Your task to perform on an android device: Open Youtube and go to the subscriptions tab Image 0: 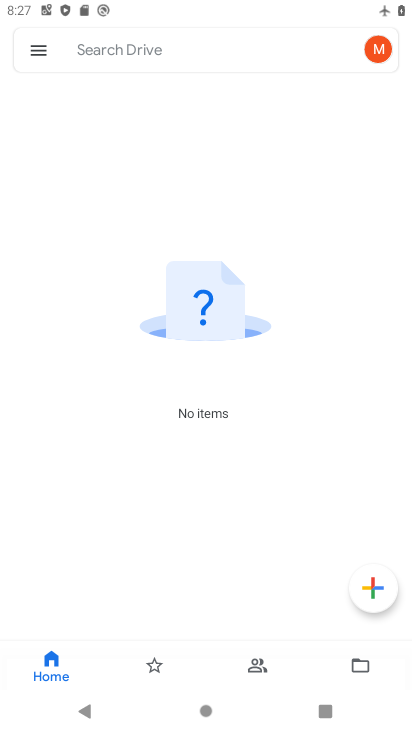
Step 0: press home button
Your task to perform on an android device: Open Youtube and go to the subscriptions tab Image 1: 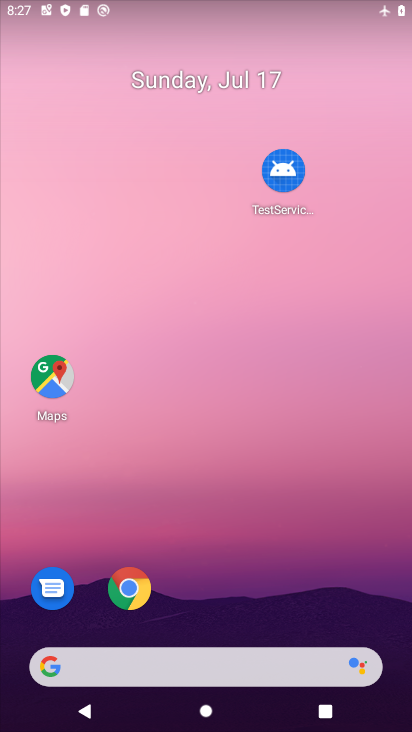
Step 1: drag from (256, 604) to (273, 94)
Your task to perform on an android device: Open Youtube and go to the subscriptions tab Image 2: 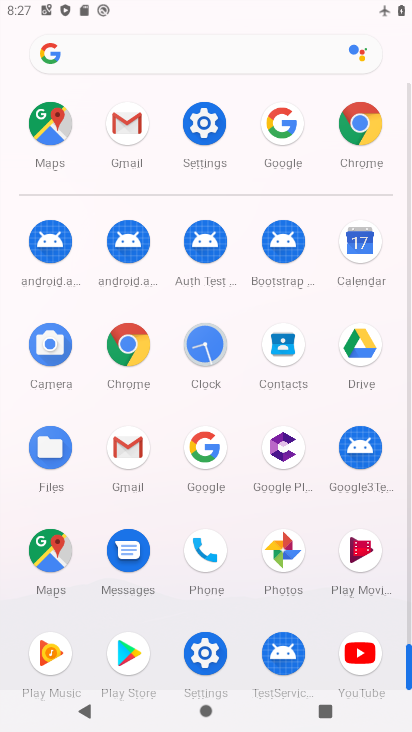
Step 2: click (365, 649)
Your task to perform on an android device: Open Youtube and go to the subscriptions tab Image 3: 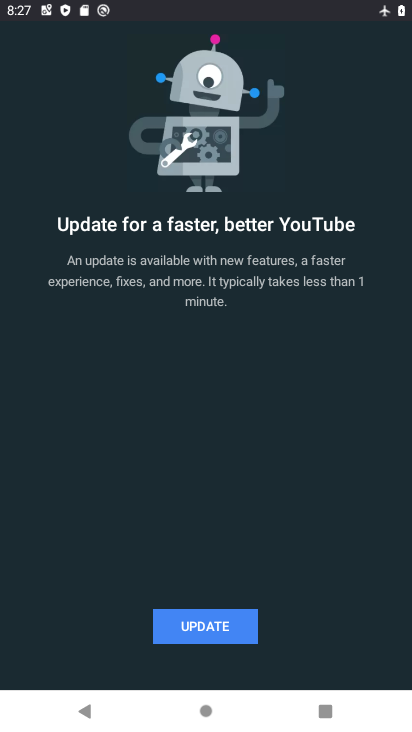
Step 3: task complete